Your task to perform on an android device: visit the assistant section in the google photos Image 0: 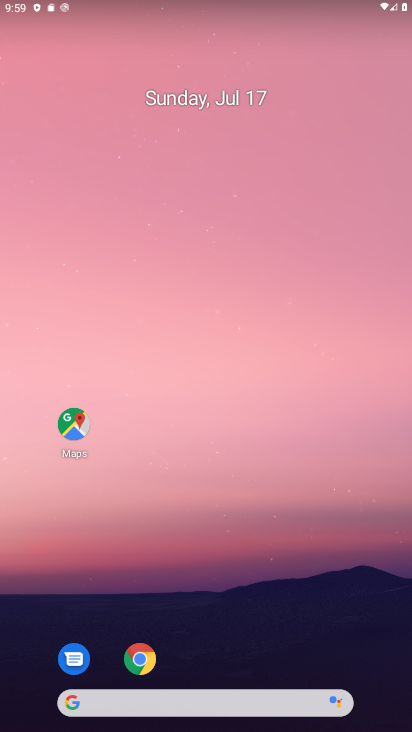
Step 0: drag from (241, 702) to (190, 6)
Your task to perform on an android device: visit the assistant section in the google photos Image 1: 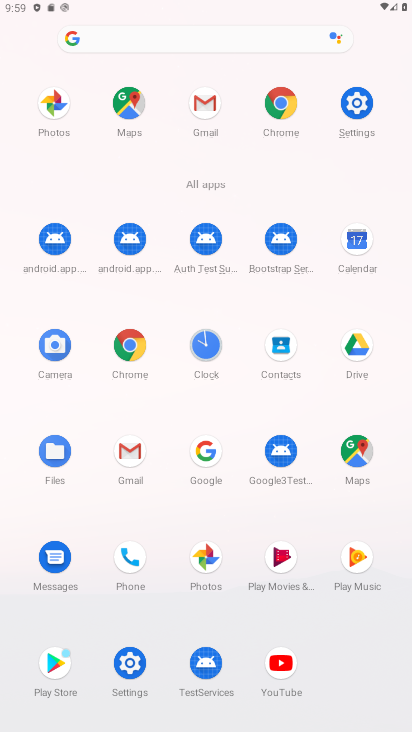
Step 1: click (202, 572)
Your task to perform on an android device: visit the assistant section in the google photos Image 2: 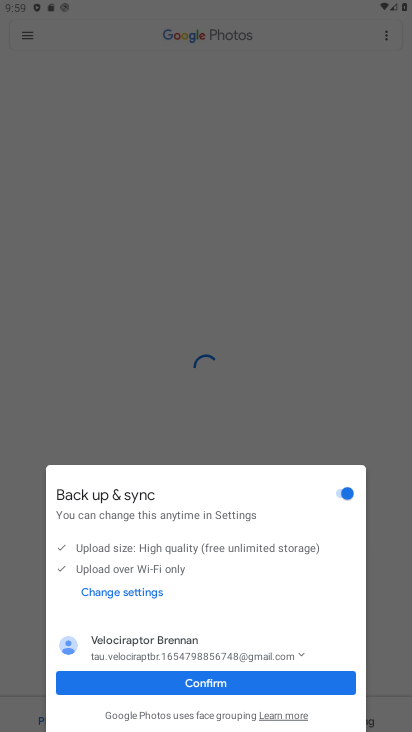
Step 2: click (211, 686)
Your task to perform on an android device: visit the assistant section in the google photos Image 3: 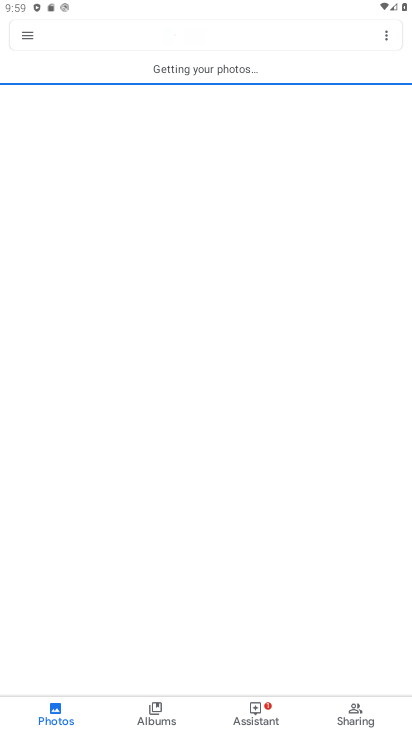
Step 3: click (253, 714)
Your task to perform on an android device: visit the assistant section in the google photos Image 4: 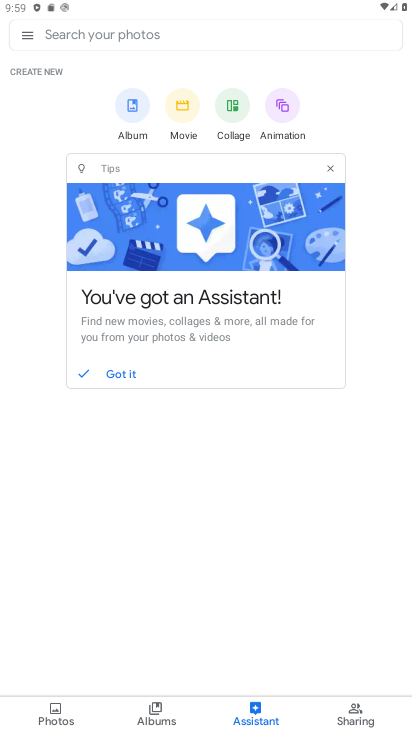
Step 4: task complete